Your task to perform on an android device: What is the news today? Image 0: 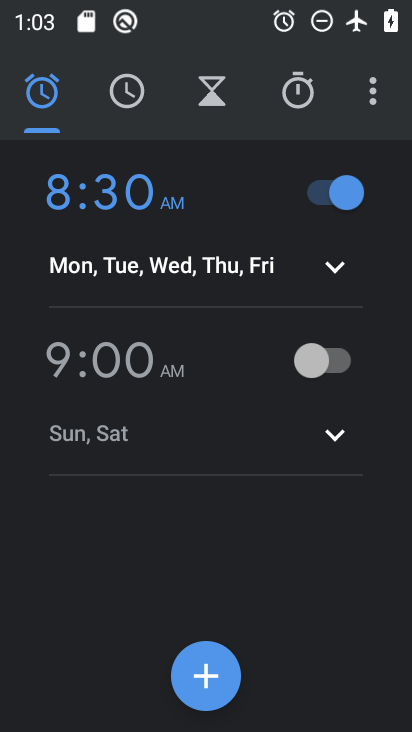
Step 0: press home button
Your task to perform on an android device: What is the news today? Image 1: 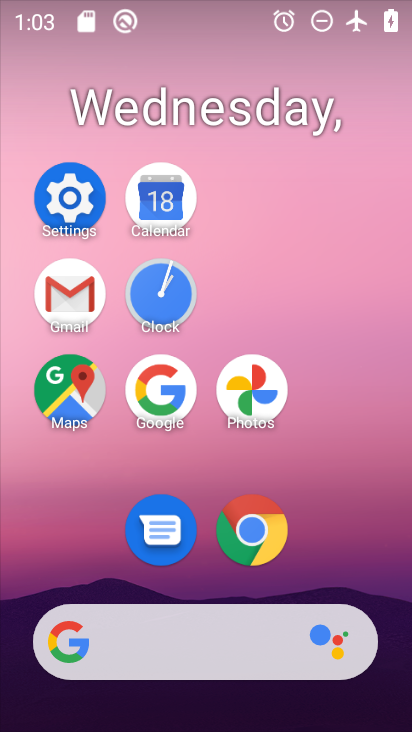
Step 1: click (183, 386)
Your task to perform on an android device: What is the news today? Image 2: 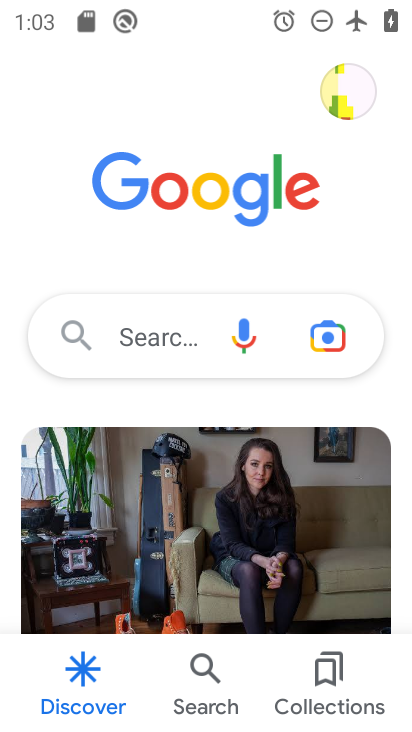
Step 2: click (134, 334)
Your task to perform on an android device: What is the news today? Image 3: 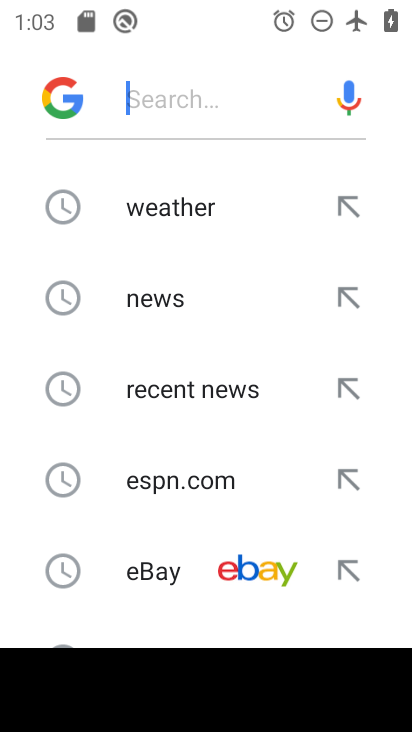
Step 3: click (143, 324)
Your task to perform on an android device: What is the news today? Image 4: 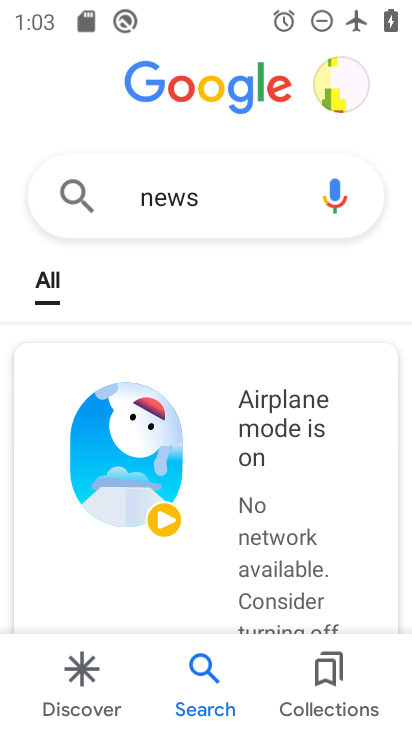
Step 4: task complete